Your task to perform on an android device: Go to notification settings Image 0: 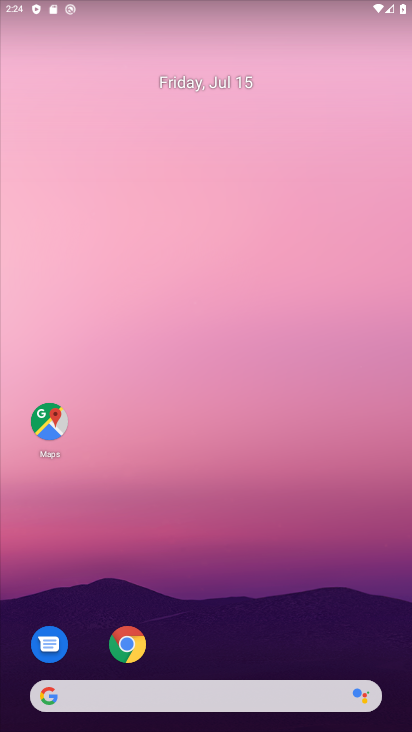
Step 0: drag from (217, 600) to (301, 4)
Your task to perform on an android device: Go to notification settings Image 1: 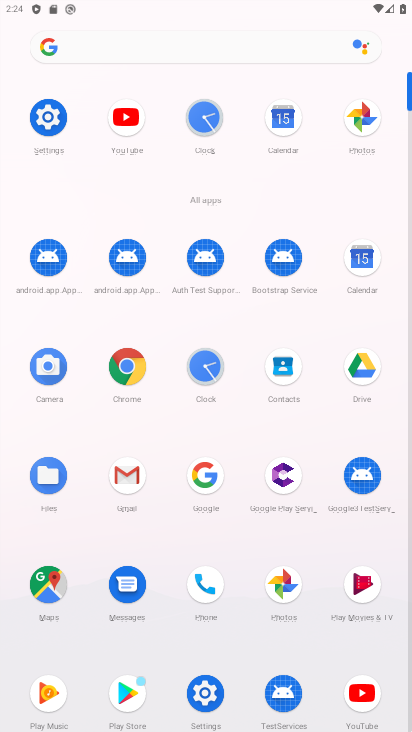
Step 1: click (39, 111)
Your task to perform on an android device: Go to notification settings Image 2: 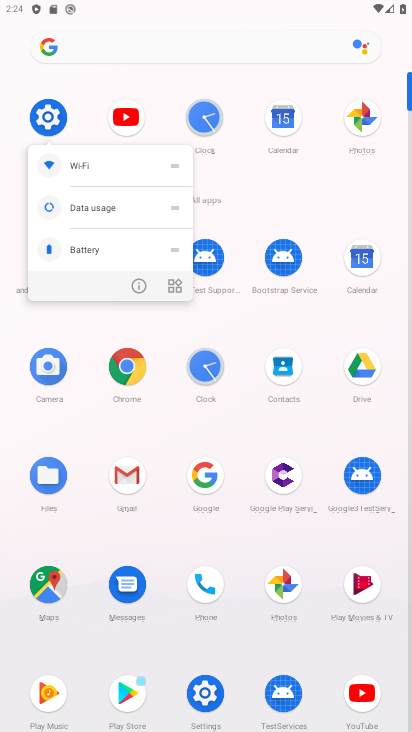
Step 2: click (58, 127)
Your task to perform on an android device: Go to notification settings Image 3: 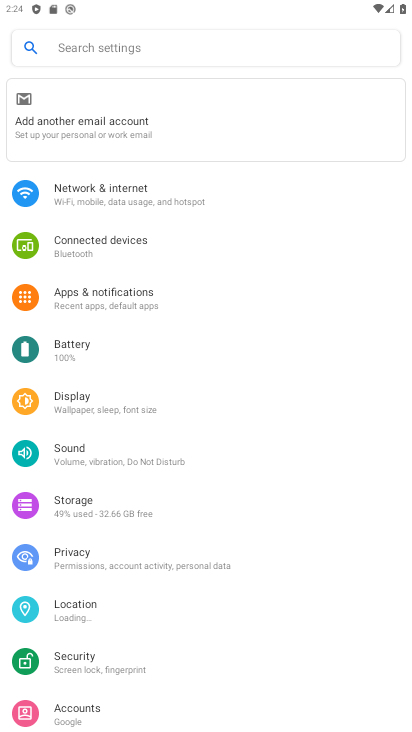
Step 3: click (138, 305)
Your task to perform on an android device: Go to notification settings Image 4: 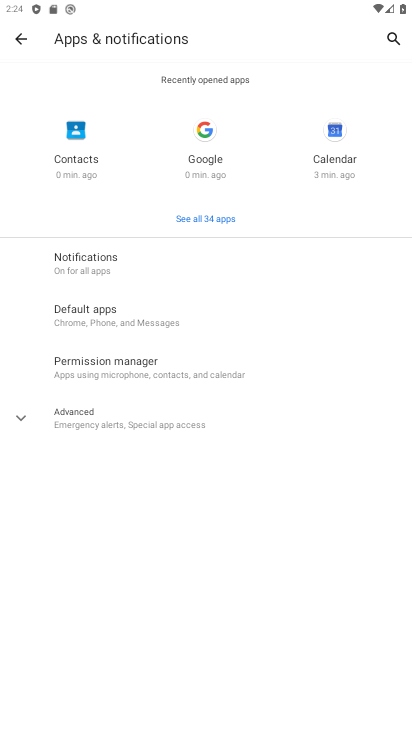
Step 4: task complete